Your task to perform on an android device: set an alarm Image 0: 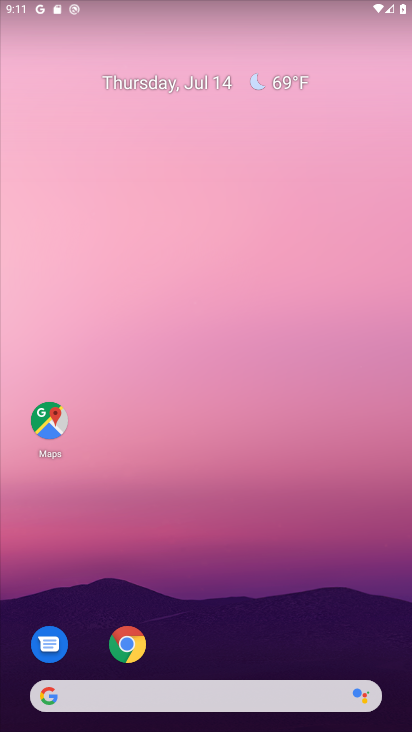
Step 0: drag from (207, 635) to (282, 7)
Your task to perform on an android device: set an alarm Image 1: 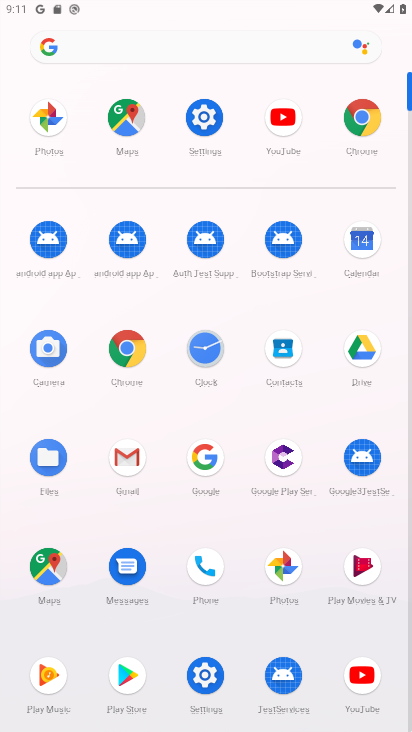
Step 1: click (207, 336)
Your task to perform on an android device: set an alarm Image 2: 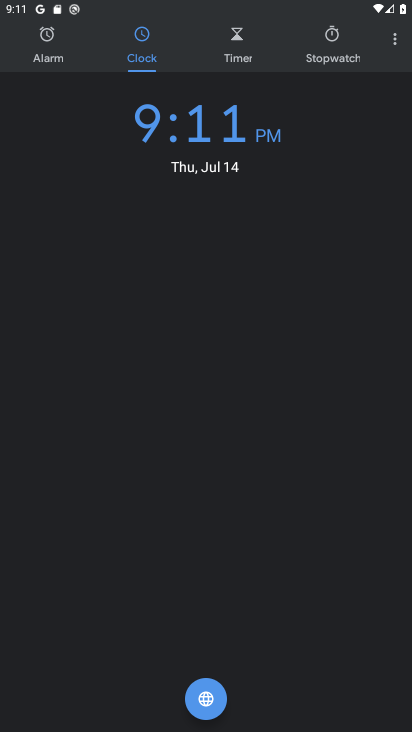
Step 2: click (50, 46)
Your task to perform on an android device: set an alarm Image 3: 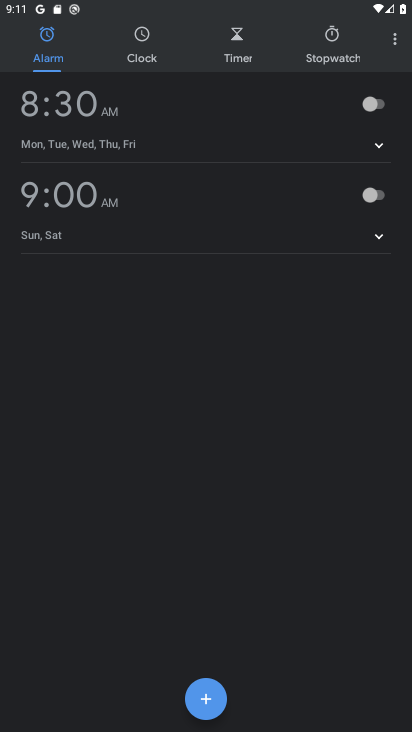
Step 3: click (380, 105)
Your task to perform on an android device: set an alarm Image 4: 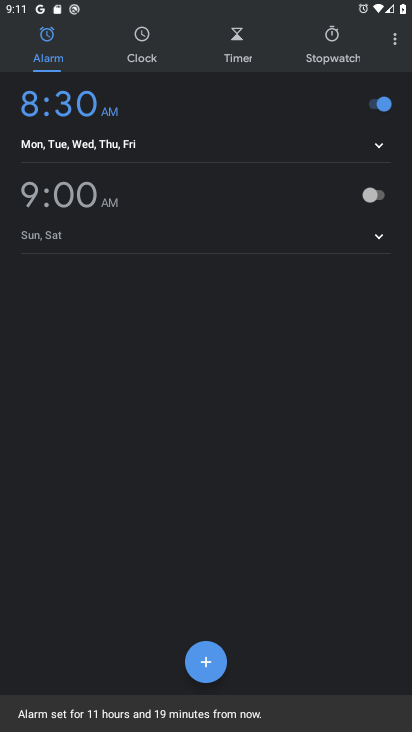
Step 4: task complete